Your task to perform on an android device: Find coffee shops on Maps Image 0: 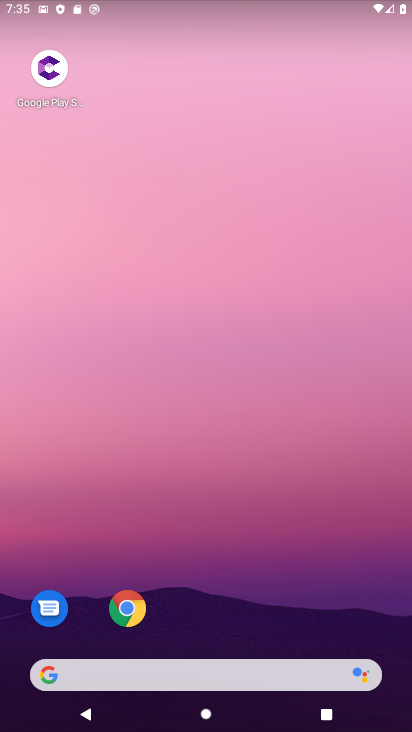
Step 0: drag from (211, 576) to (245, 34)
Your task to perform on an android device: Find coffee shops on Maps Image 1: 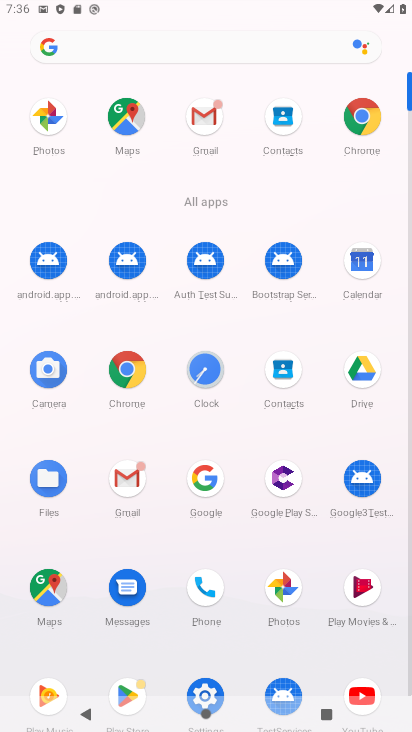
Step 1: click (129, 133)
Your task to perform on an android device: Find coffee shops on Maps Image 2: 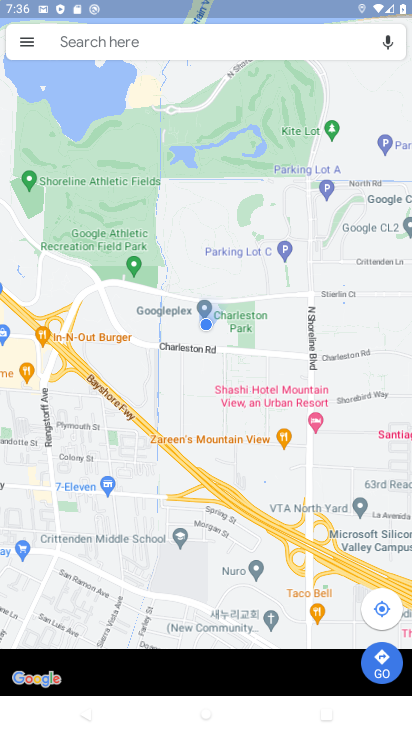
Step 2: click (284, 53)
Your task to perform on an android device: Find coffee shops on Maps Image 3: 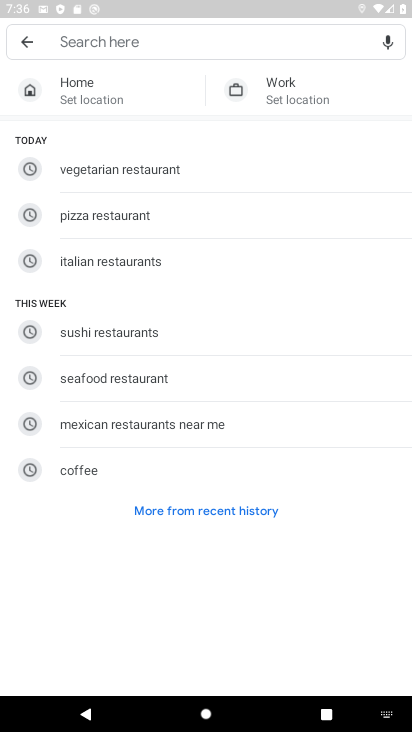
Step 3: click (327, 454)
Your task to perform on an android device: Find coffee shops on Maps Image 4: 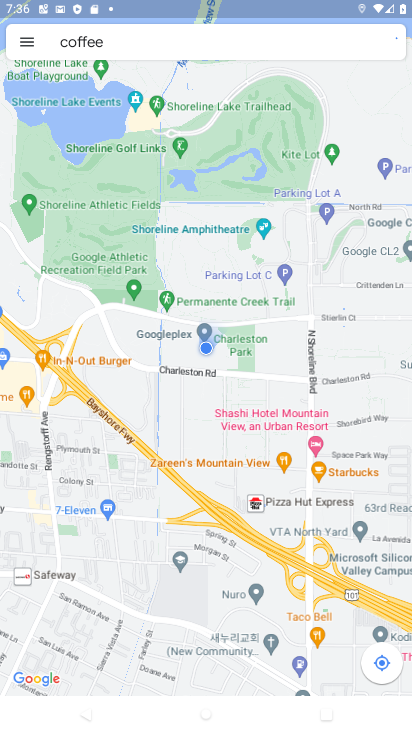
Step 4: task complete